Your task to perform on an android device: turn on sleep mode Image 0: 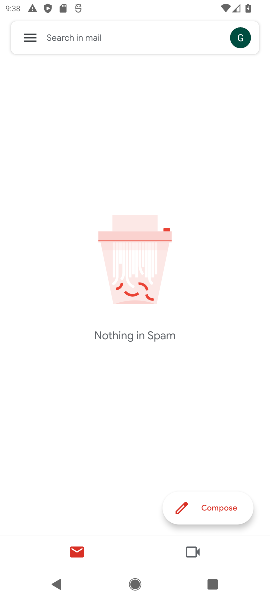
Step 0: press home button
Your task to perform on an android device: turn on sleep mode Image 1: 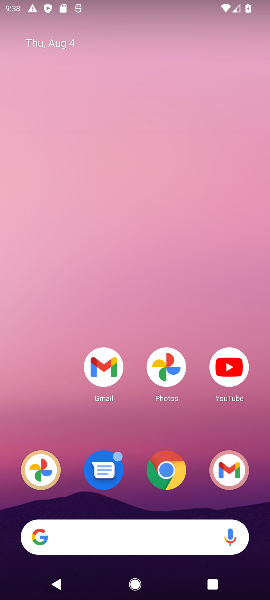
Step 1: drag from (135, 432) to (135, 224)
Your task to perform on an android device: turn on sleep mode Image 2: 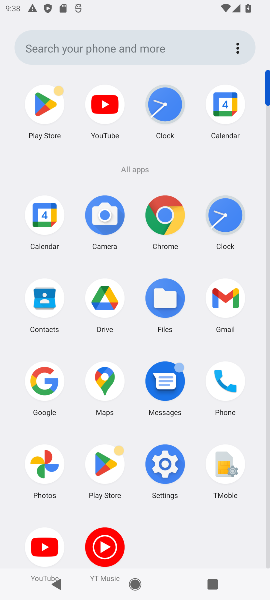
Step 2: click (158, 462)
Your task to perform on an android device: turn on sleep mode Image 3: 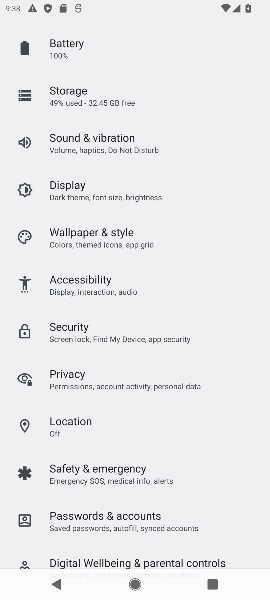
Step 3: click (113, 196)
Your task to perform on an android device: turn on sleep mode Image 4: 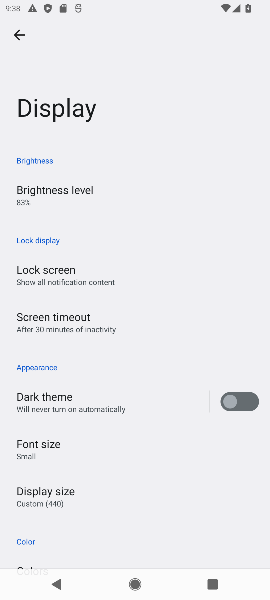
Step 4: task complete